Your task to perform on an android device: open a bookmark in the chrome app Image 0: 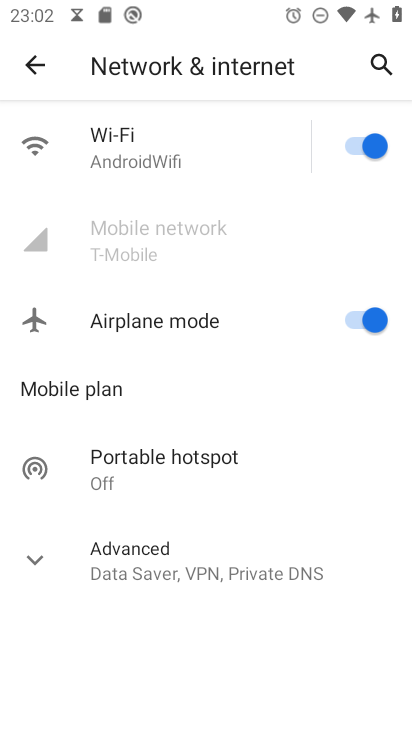
Step 0: press home button
Your task to perform on an android device: open a bookmark in the chrome app Image 1: 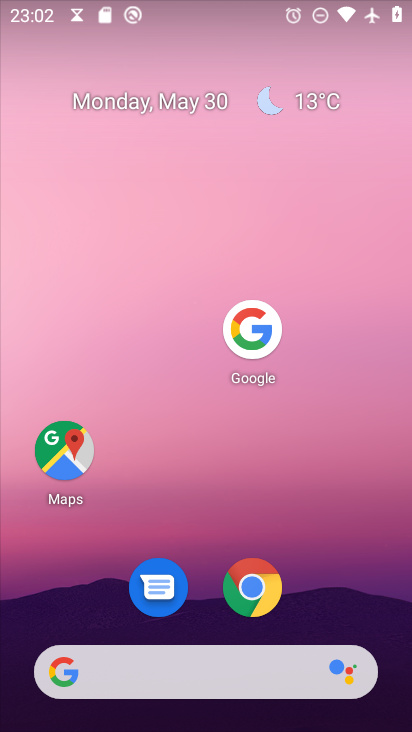
Step 1: click (246, 585)
Your task to perform on an android device: open a bookmark in the chrome app Image 2: 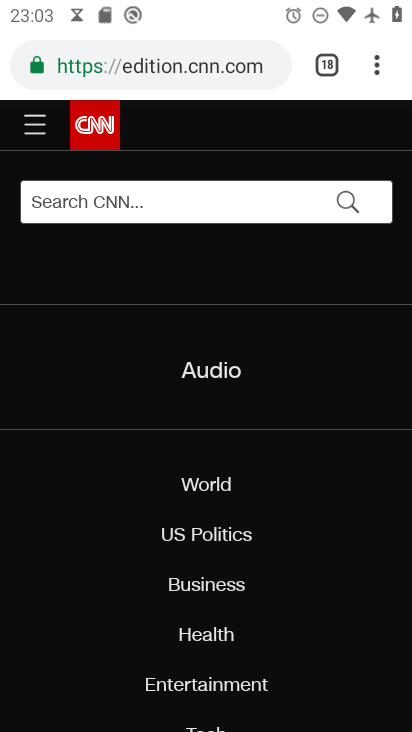
Step 2: task complete